Your task to perform on an android device: Open the play store Image 0: 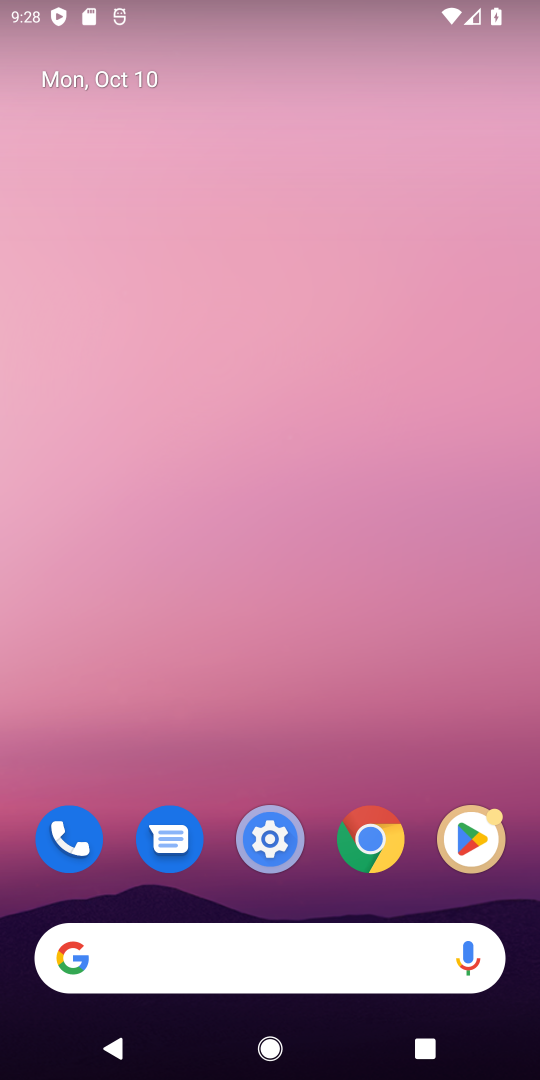
Step 0: drag from (343, 768) to (344, 137)
Your task to perform on an android device: Open the play store Image 1: 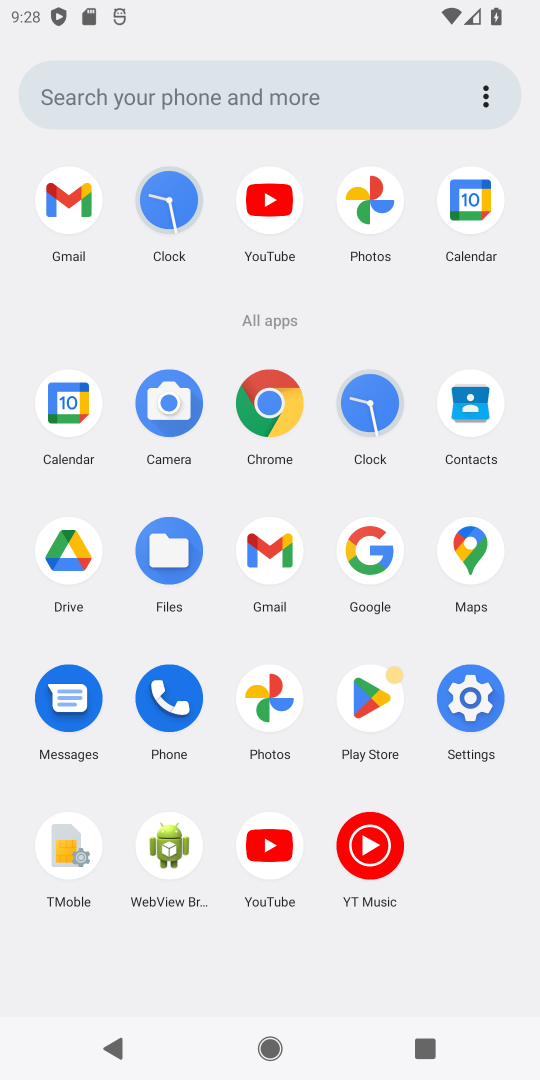
Step 1: click (394, 690)
Your task to perform on an android device: Open the play store Image 2: 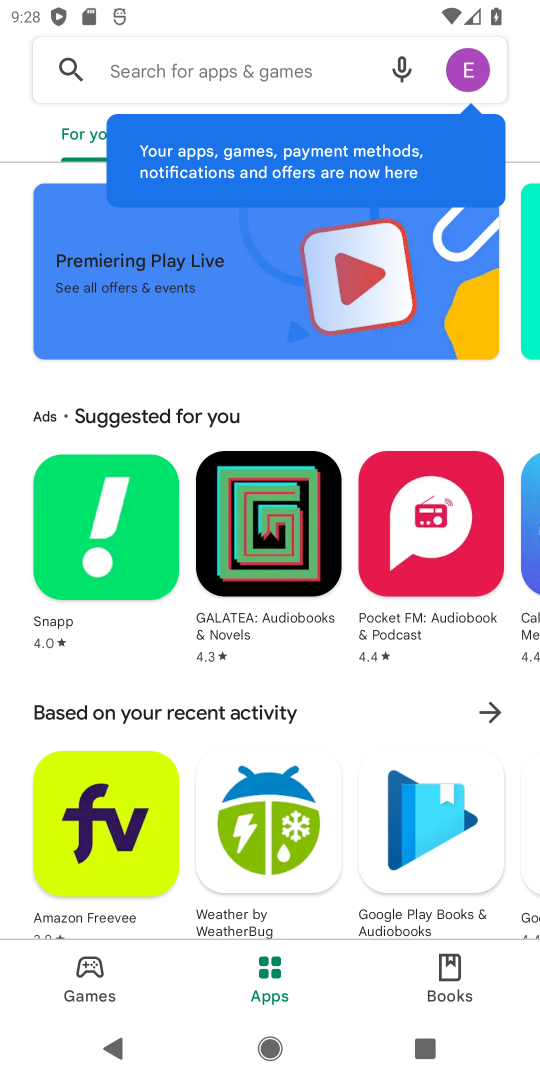
Step 2: task complete